Your task to perform on an android device: open app "TextNow: Call + Text Unlimited" Image 0: 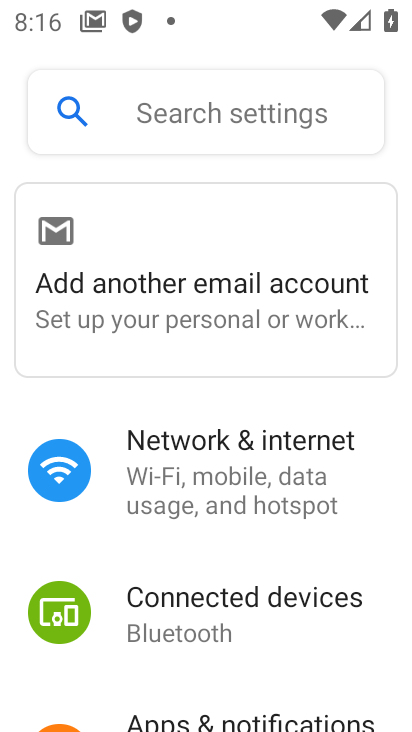
Step 0: click (340, 284)
Your task to perform on an android device: open app "TextNow: Call + Text Unlimited" Image 1: 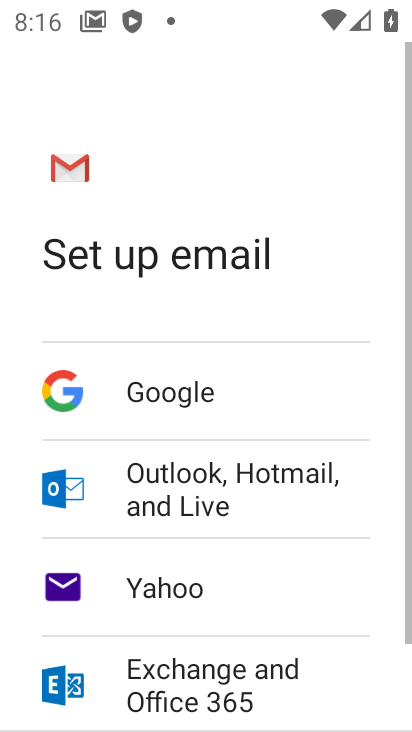
Step 1: press home button
Your task to perform on an android device: open app "TextNow: Call + Text Unlimited" Image 2: 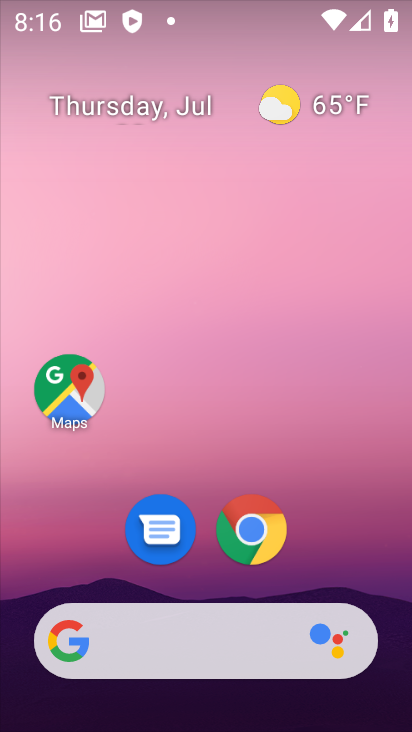
Step 2: drag from (336, 461) to (332, 24)
Your task to perform on an android device: open app "TextNow: Call + Text Unlimited" Image 3: 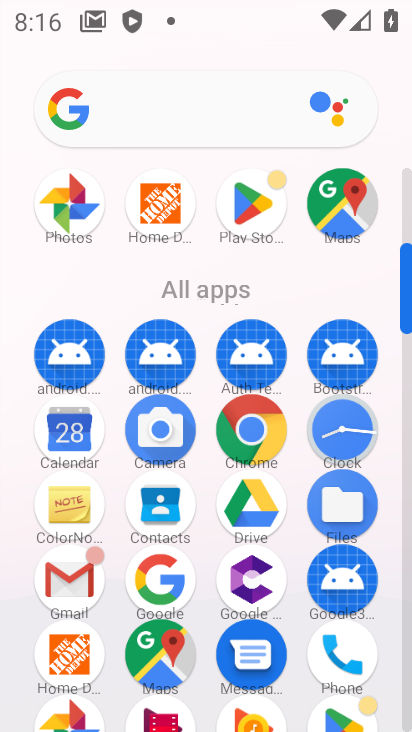
Step 3: click (257, 214)
Your task to perform on an android device: open app "TextNow: Call + Text Unlimited" Image 4: 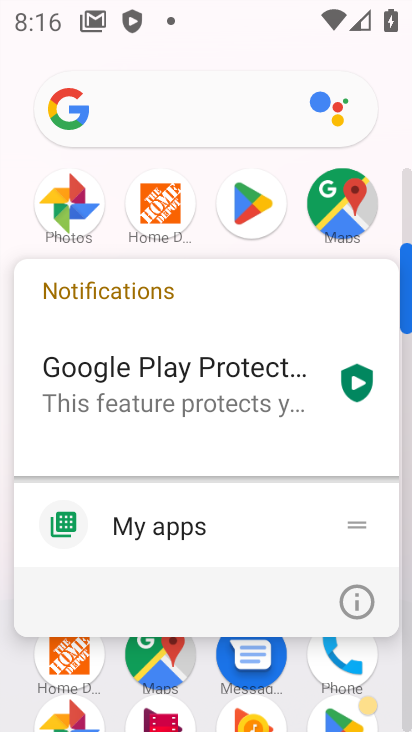
Step 4: click (257, 214)
Your task to perform on an android device: open app "TextNow: Call + Text Unlimited" Image 5: 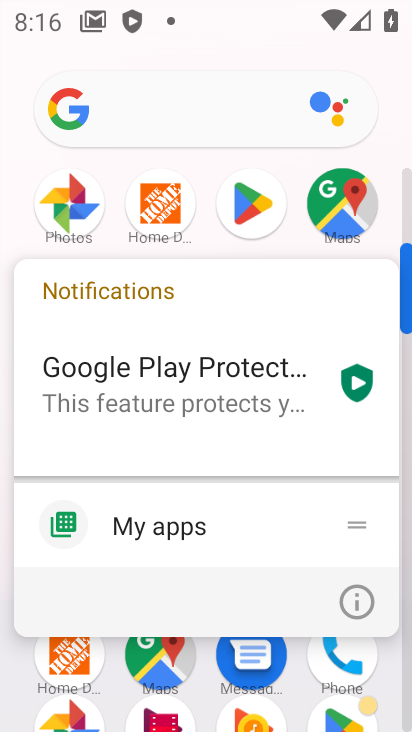
Step 5: click (257, 214)
Your task to perform on an android device: open app "TextNow: Call + Text Unlimited" Image 6: 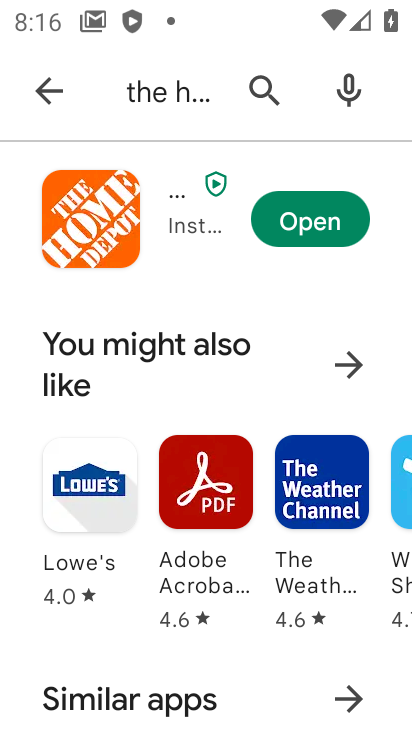
Step 6: click (255, 90)
Your task to perform on an android device: open app "TextNow: Call + Text Unlimited" Image 7: 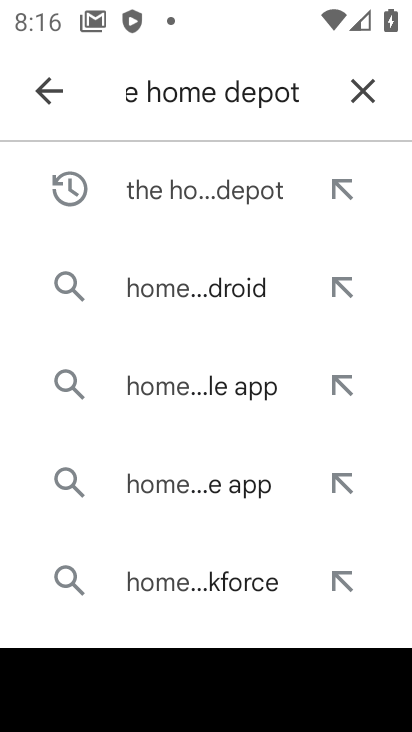
Step 7: click (369, 98)
Your task to perform on an android device: open app "TextNow: Call + Text Unlimited" Image 8: 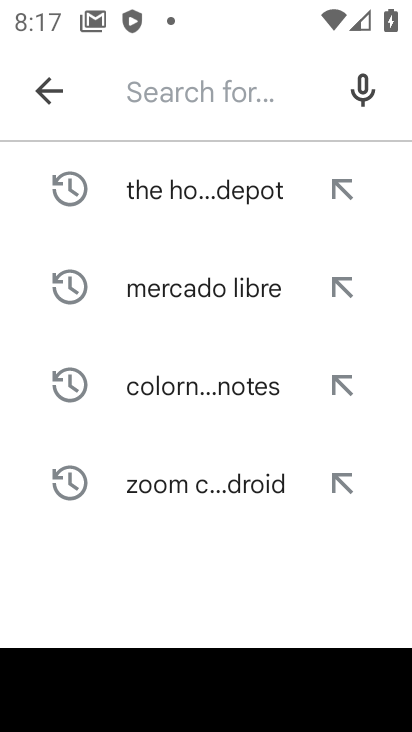
Step 8: click (251, 105)
Your task to perform on an android device: open app "TextNow: Call + Text Unlimited" Image 9: 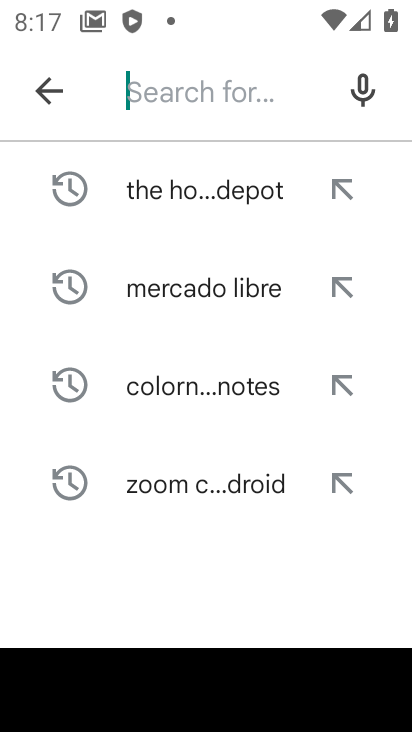
Step 9: type "TextNow: Call + Text Unlimited"
Your task to perform on an android device: open app "TextNow: Call + Text Unlimited" Image 10: 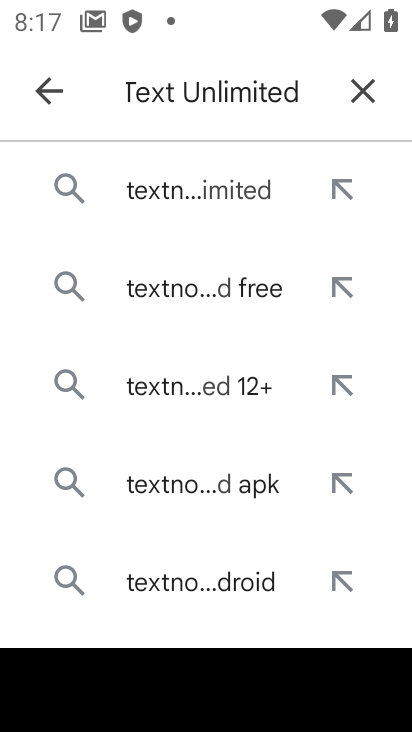
Step 10: task complete